Your task to perform on an android device: Check the weather Image 0: 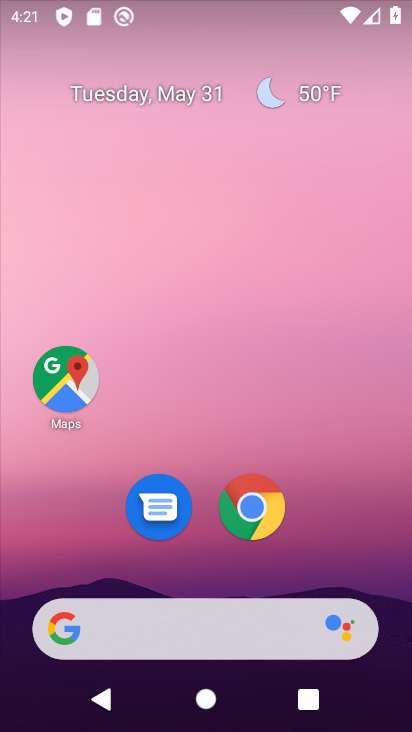
Step 0: click (228, 628)
Your task to perform on an android device: Check the weather Image 1: 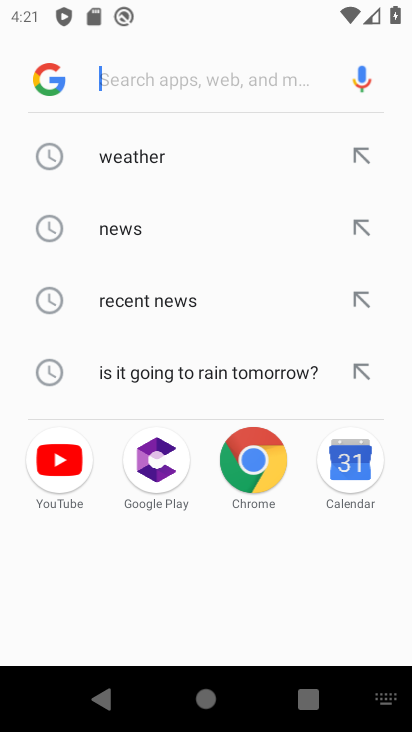
Step 1: click (134, 170)
Your task to perform on an android device: Check the weather Image 2: 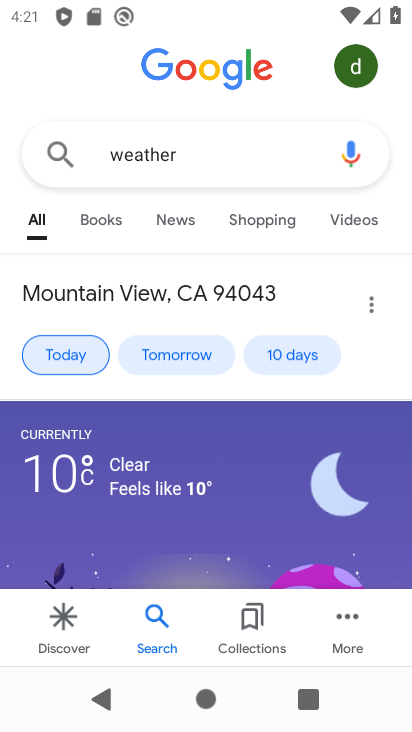
Step 2: click (76, 347)
Your task to perform on an android device: Check the weather Image 3: 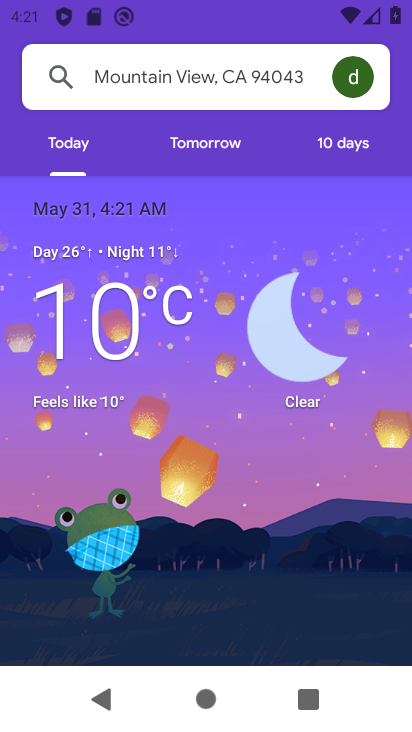
Step 3: task complete